Your task to perform on an android device: toggle improve location accuracy Image 0: 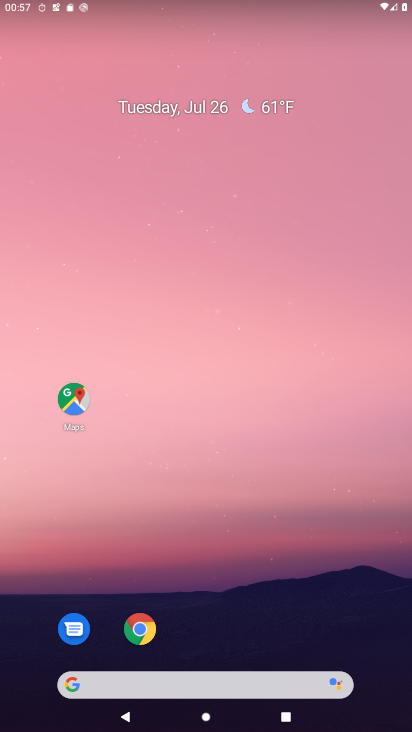
Step 0: drag from (183, 629) to (190, 157)
Your task to perform on an android device: toggle improve location accuracy Image 1: 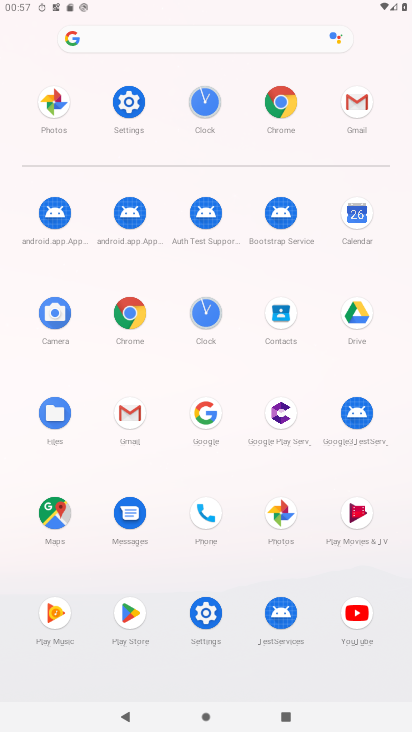
Step 1: click (137, 115)
Your task to perform on an android device: toggle improve location accuracy Image 2: 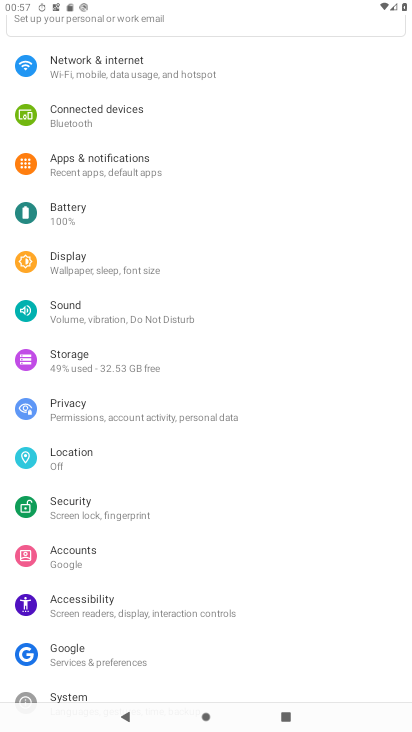
Step 2: click (139, 460)
Your task to perform on an android device: toggle improve location accuracy Image 3: 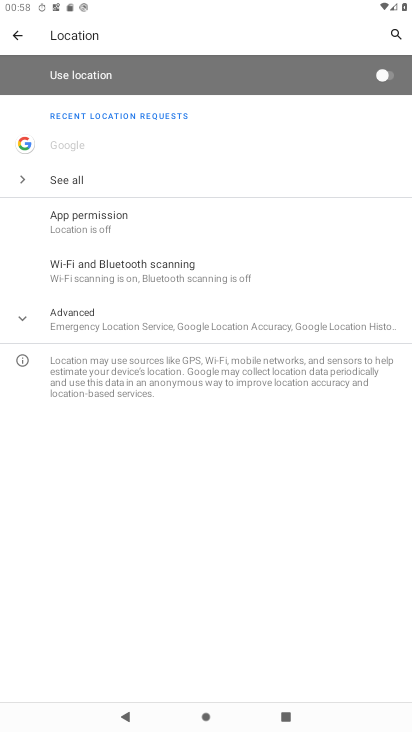
Step 3: click (170, 317)
Your task to perform on an android device: toggle improve location accuracy Image 4: 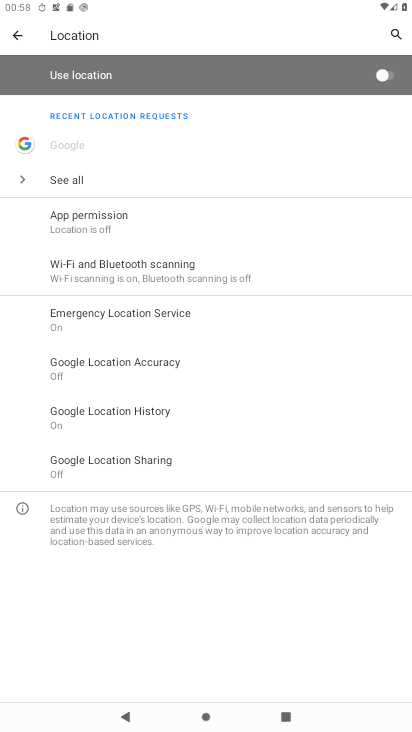
Step 4: click (137, 375)
Your task to perform on an android device: toggle improve location accuracy Image 5: 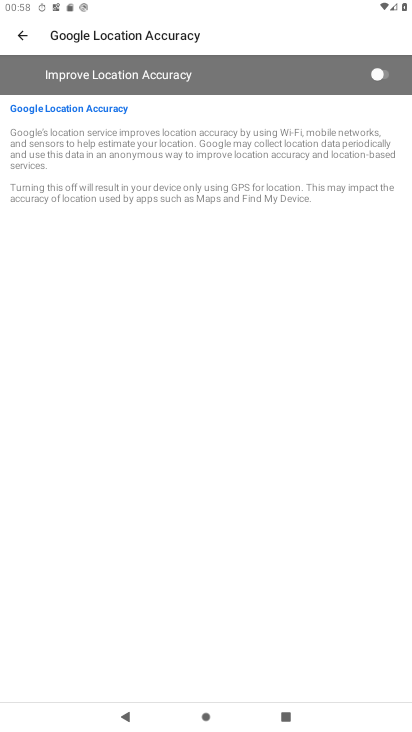
Step 5: click (395, 74)
Your task to perform on an android device: toggle improve location accuracy Image 6: 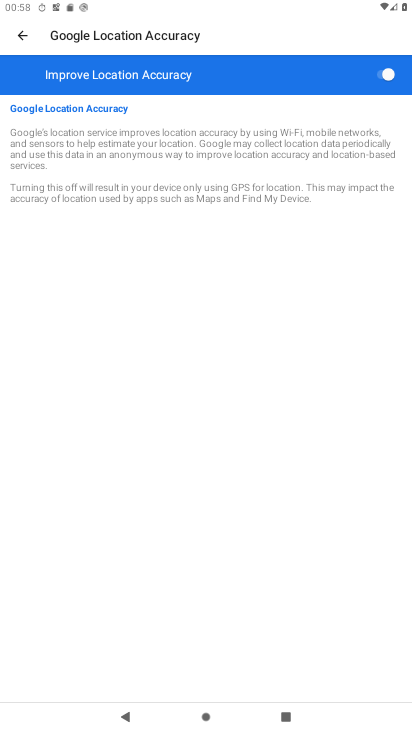
Step 6: task complete